Your task to perform on an android device: turn off javascript in the chrome app Image 0: 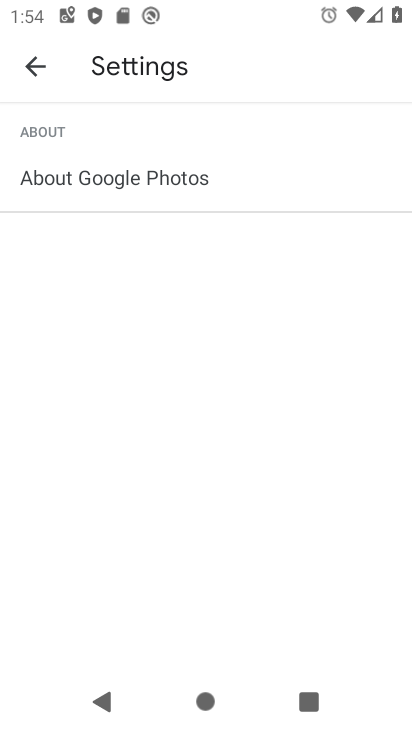
Step 0: press home button
Your task to perform on an android device: turn off javascript in the chrome app Image 1: 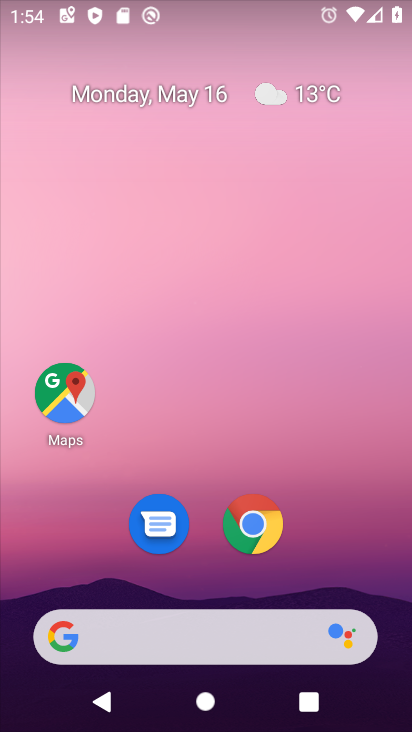
Step 1: click (251, 525)
Your task to perform on an android device: turn off javascript in the chrome app Image 2: 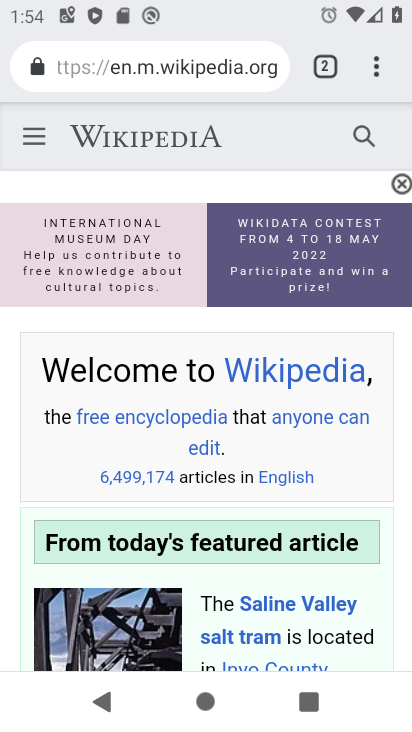
Step 2: click (376, 67)
Your task to perform on an android device: turn off javascript in the chrome app Image 3: 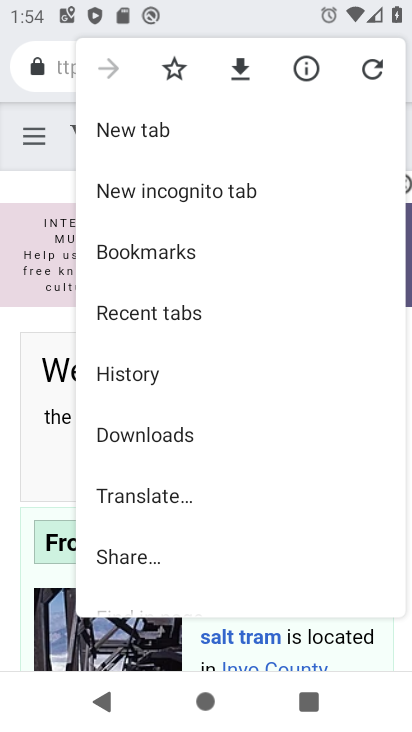
Step 3: drag from (252, 402) to (267, 139)
Your task to perform on an android device: turn off javascript in the chrome app Image 4: 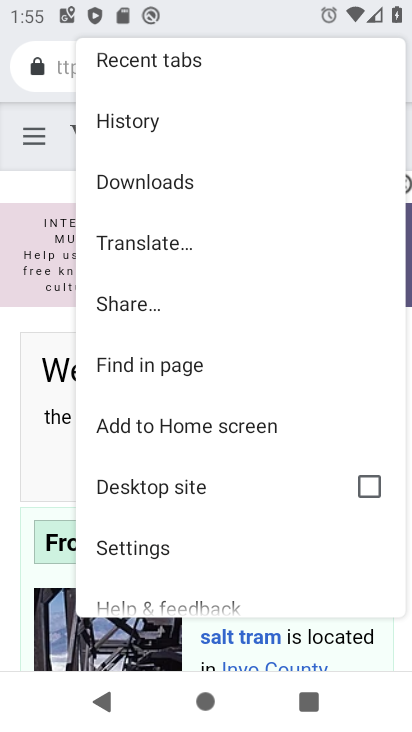
Step 4: click (191, 545)
Your task to perform on an android device: turn off javascript in the chrome app Image 5: 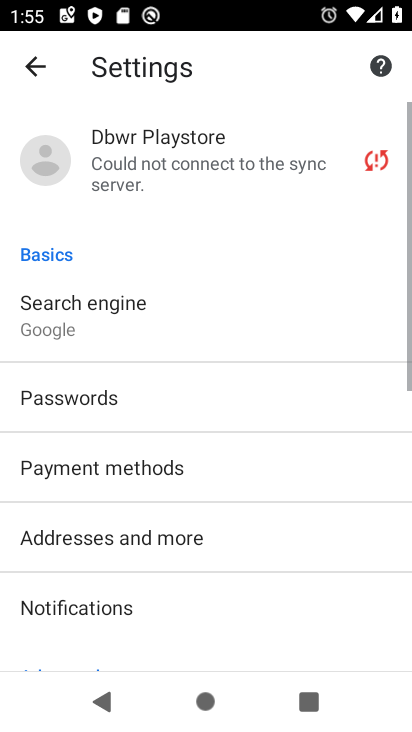
Step 5: drag from (203, 527) to (245, 170)
Your task to perform on an android device: turn off javascript in the chrome app Image 6: 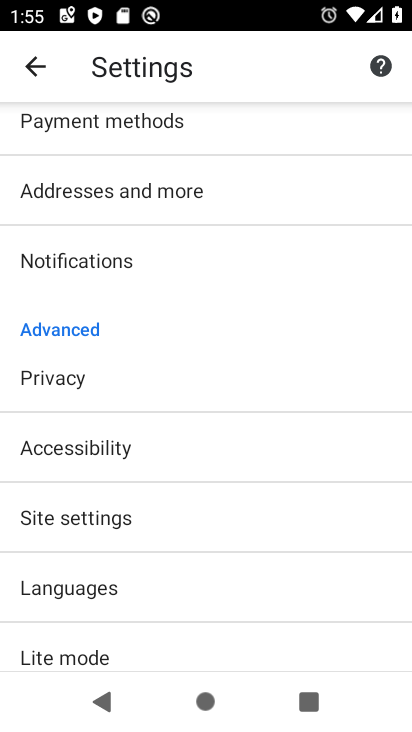
Step 6: click (148, 510)
Your task to perform on an android device: turn off javascript in the chrome app Image 7: 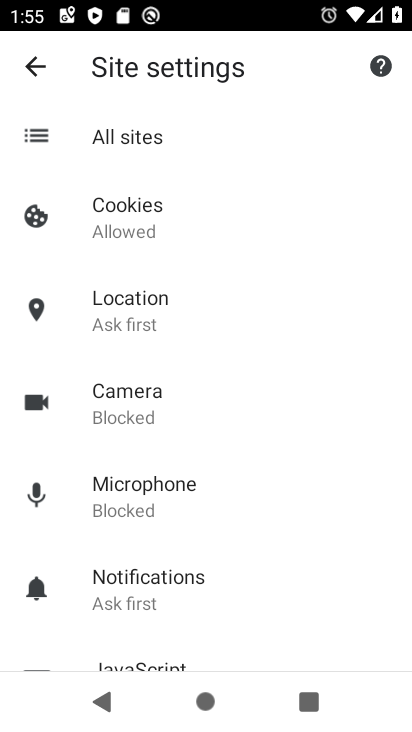
Step 7: drag from (244, 513) to (258, 253)
Your task to perform on an android device: turn off javascript in the chrome app Image 8: 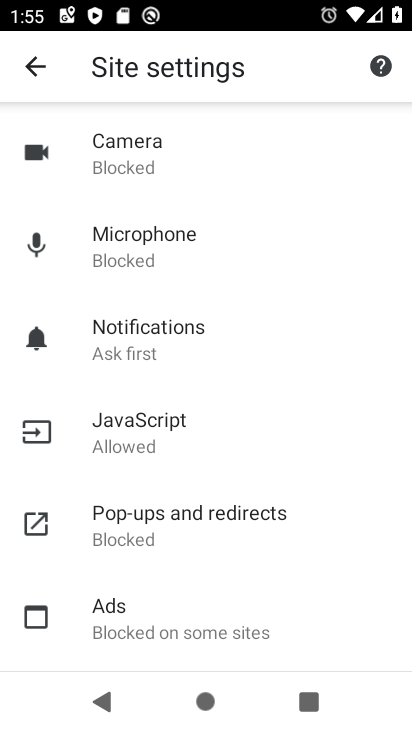
Step 8: click (196, 436)
Your task to perform on an android device: turn off javascript in the chrome app Image 9: 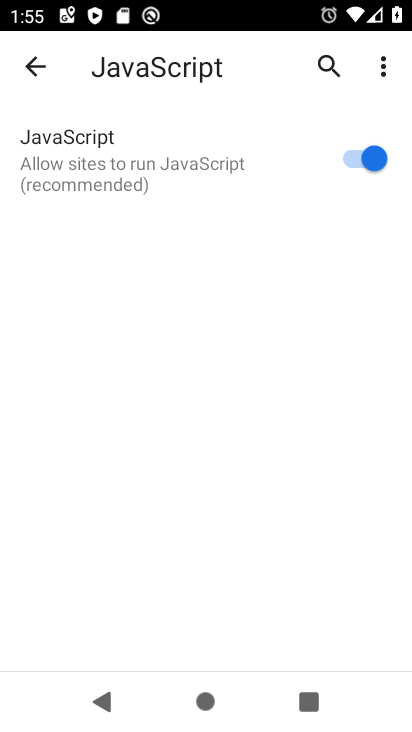
Step 9: click (361, 149)
Your task to perform on an android device: turn off javascript in the chrome app Image 10: 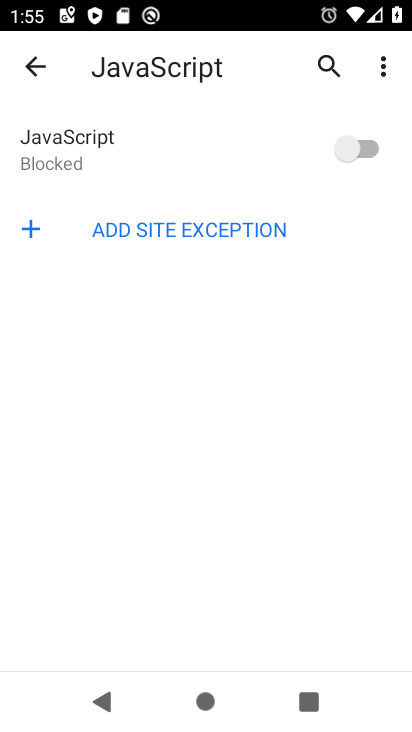
Step 10: task complete